Your task to perform on an android device: see sites visited before in the chrome app Image 0: 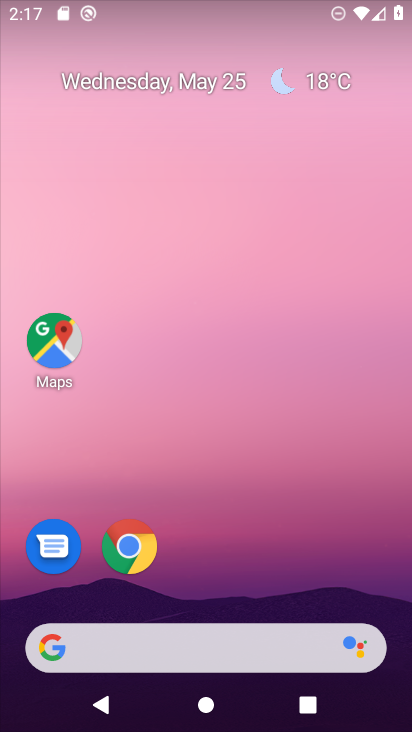
Step 0: click (134, 554)
Your task to perform on an android device: see sites visited before in the chrome app Image 1: 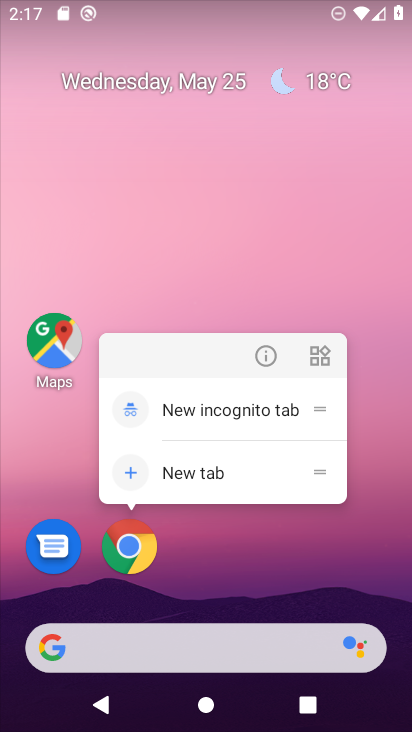
Step 1: click (135, 553)
Your task to perform on an android device: see sites visited before in the chrome app Image 2: 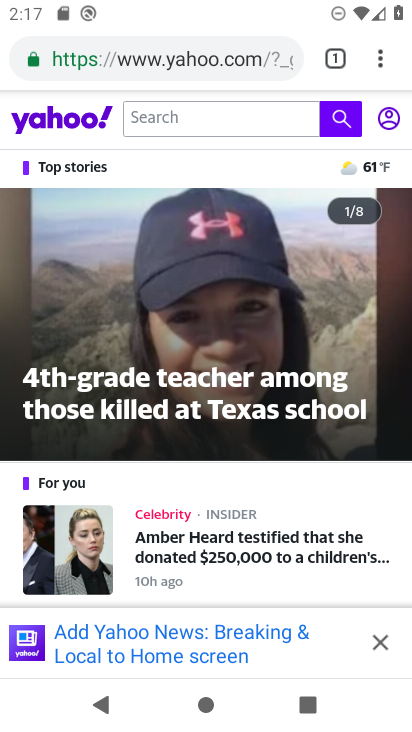
Step 2: click (381, 55)
Your task to perform on an android device: see sites visited before in the chrome app Image 3: 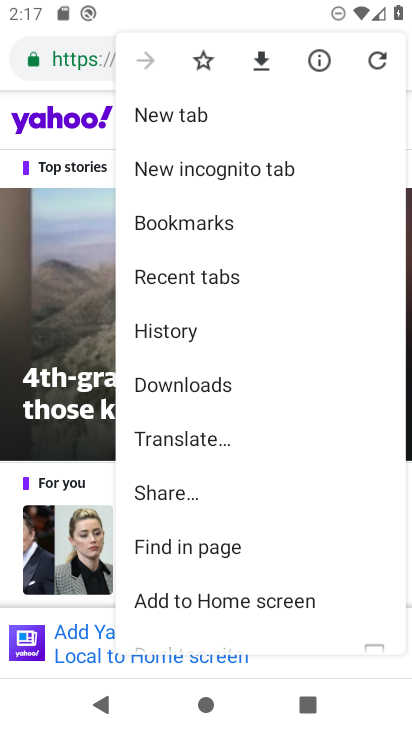
Step 3: click (200, 332)
Your task to perform on an android device: see sites visited before in the chrome app Image 4: 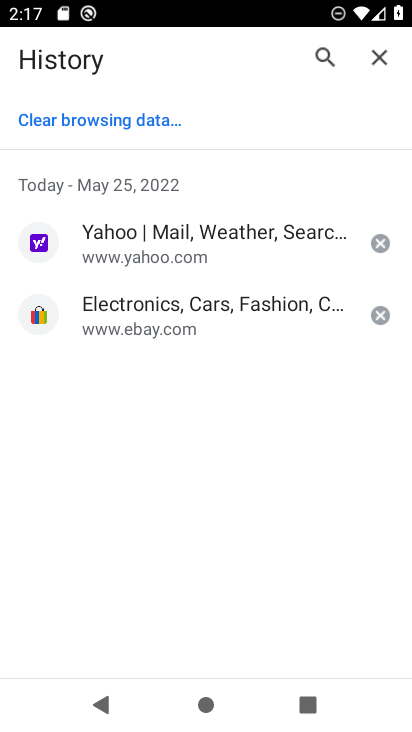
Step 4: task complete